Your task to perform on an android device: search for starred emails in the gmail app Image 0: 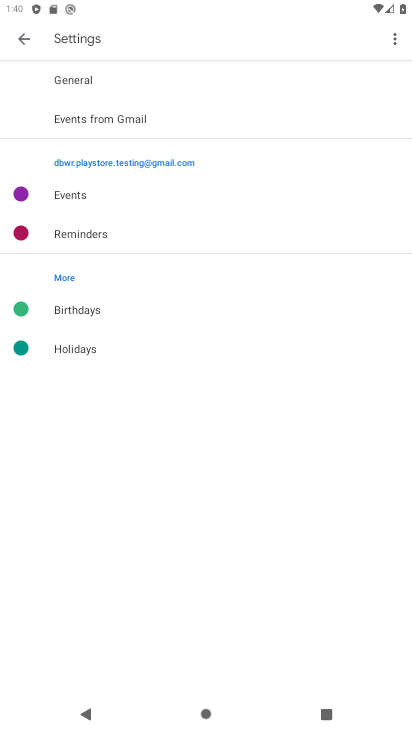
Step 0: press back button
Your task to perform on an android device: search for starred emails in the gmail app Image 1: 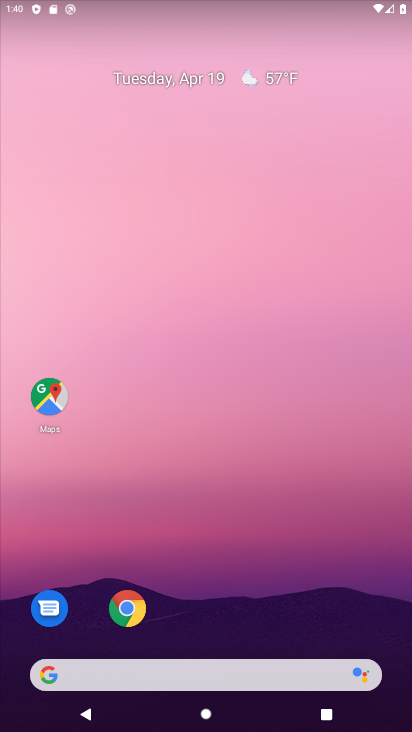
Step 1: drag from (211, 658) to (237, 263)
Your task to perform on an android device: search for starred emails in the gmail app Image 2: 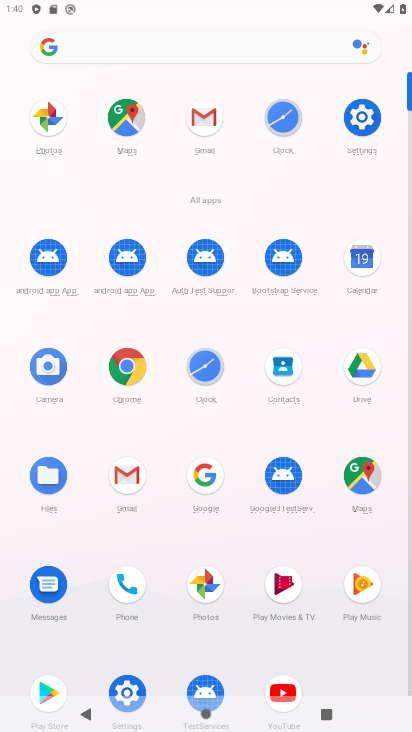
Step 2: click (123, 472)
Your task to perform on an android device: search for starred emails in the gmail app Image 3: 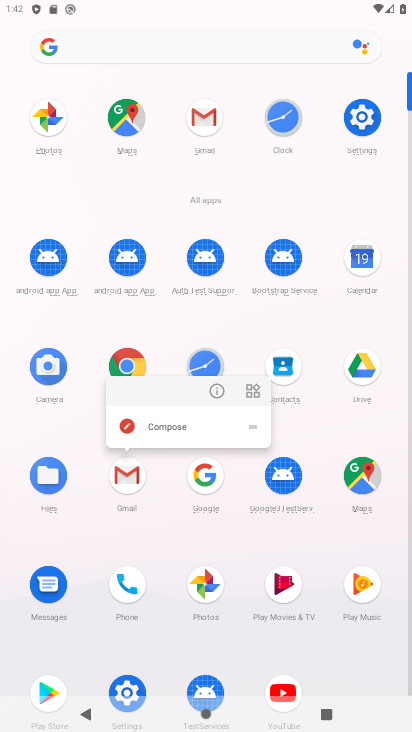
Step 3: click (107, 482)
Your task to perform on an android device: search for starred emails in the gmail app Image 4: 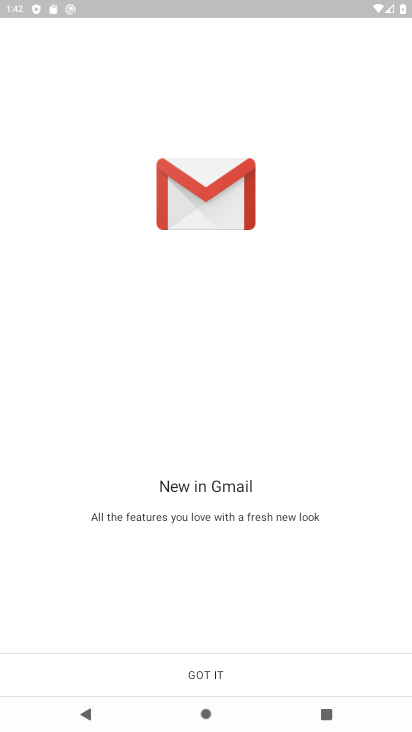
Step 4: click (199, 673)
Your task to perform on an android device: search for starred emails in the gmail app Image 5: 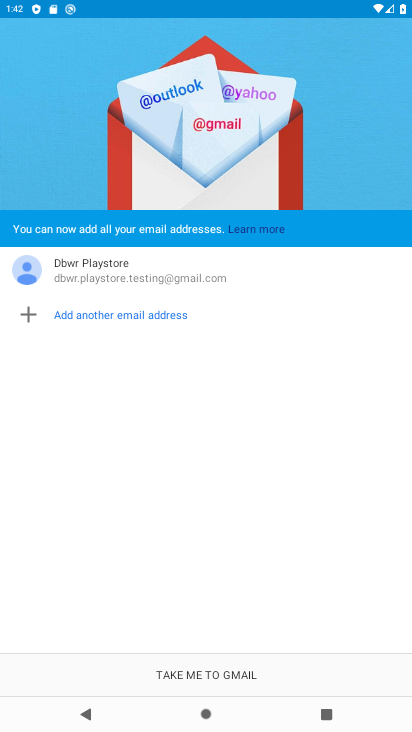
Step 5: click (199, 672)
Your task to perform on an android device: search for starred emails in the gmail app Image 6: 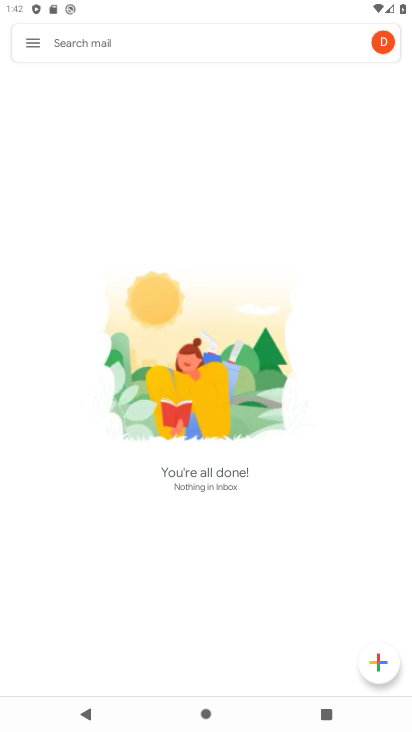
Step 6: task complete